Your task to perform on an android device: open chrome and create a bookmark for the current page Image 0: 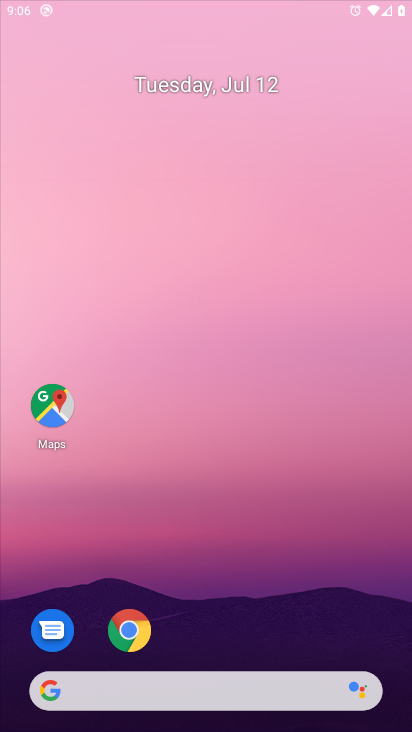
Step 0: press home button
Your task to perform on an android device: open chrome and create a bookmark for the current page Image 1: 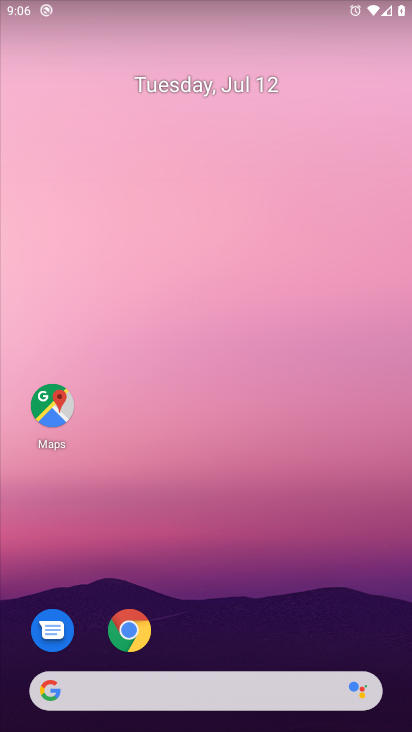
Step 1: drag from (239, 599) to (228, 237)
Your task to perform on an android device: open chrome and create a bookmark for the current page Image 2: 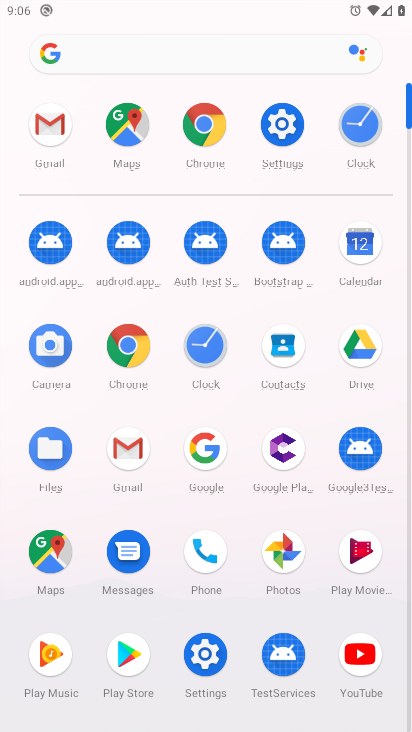
Step 2: click (205, 126)
Your task to perform on an android device: open chrome and create a bookmark for the current page Image 3: 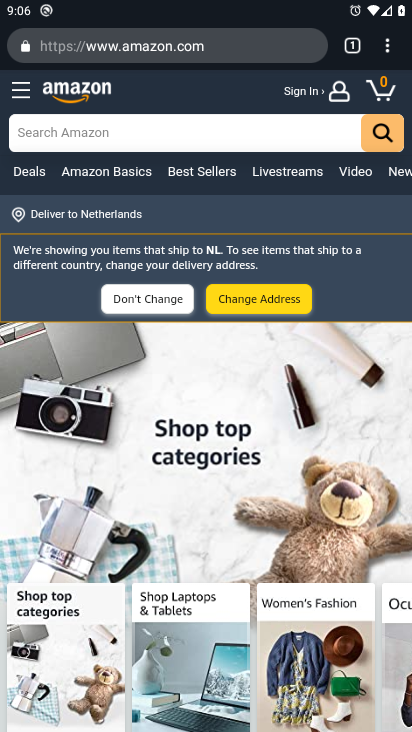
Step 3: drag from (389, 57) to (243, 49)
Your task to perform on an android device: open chrome and create a bookmark for the current page Image 4: 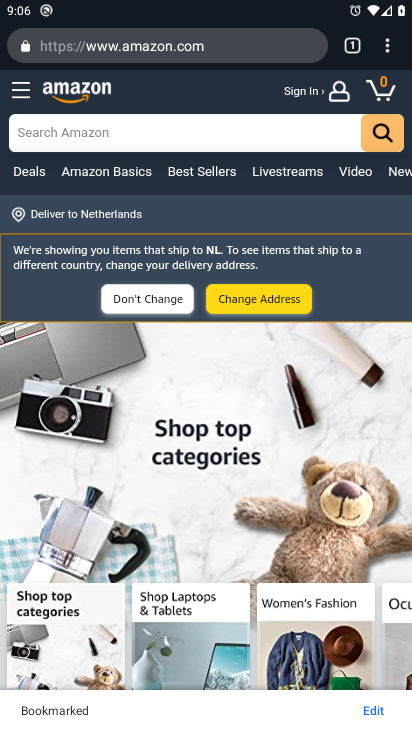
Step 4: click (381, 55)
Your task to perform on an android device: open chrome and create a bookmark for the current page Image 5: 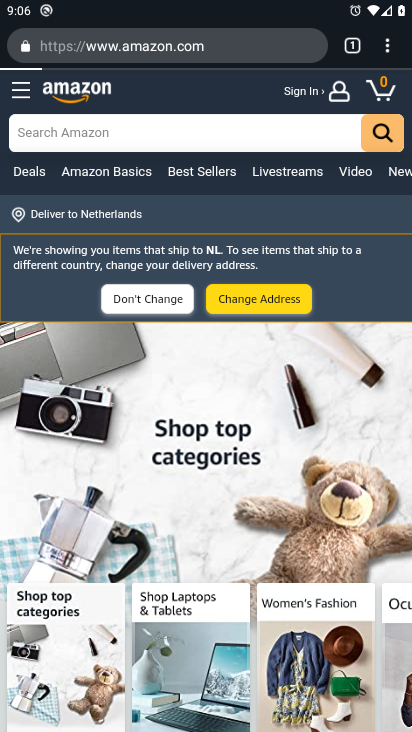
Step 5: task complete